Your task to perform on an android device: Open Maps and search for coffee Image 0: 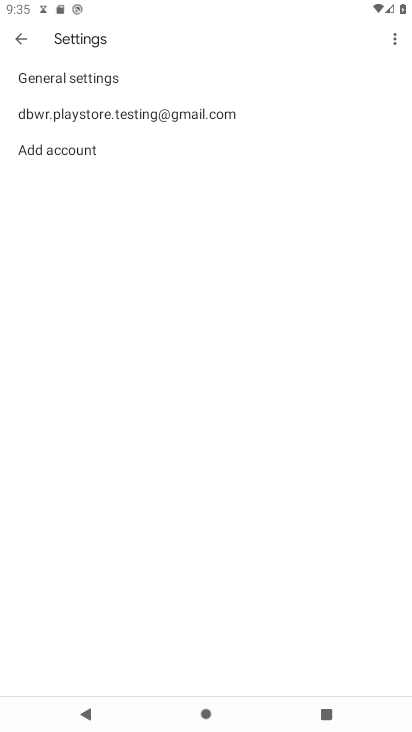
Step 0: press home button
Your task to perform on an android device: Open Maps and search for coffee Image 1: 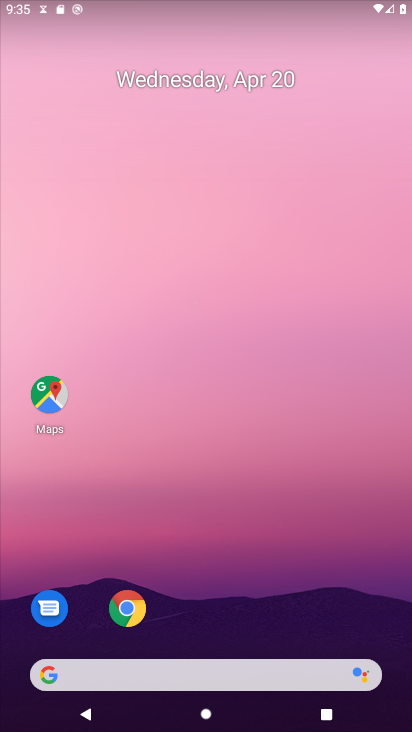
Step 1: drag from (165, 623) to (105, 58)
Your task to perform on an android device: Open Maps and search for coffee Image 2: 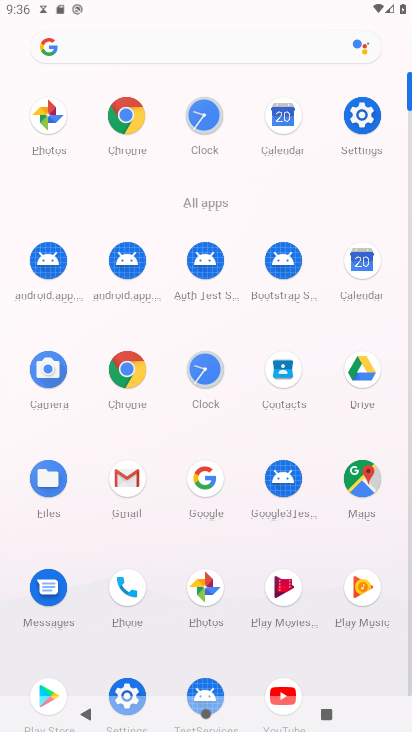
Step 2: click (359, 480)
Your task to perform on an android device: Open Maps and search for coffee Image 3: 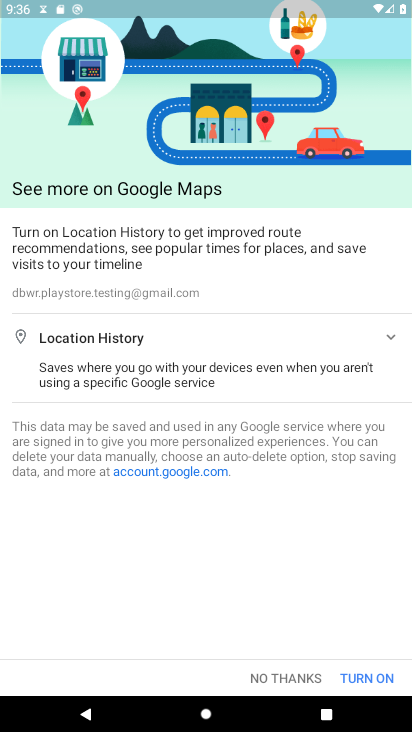
Step 3: click (342, 676)
Your task to perform on an android device: Open Maps and search for coffee Image 4: 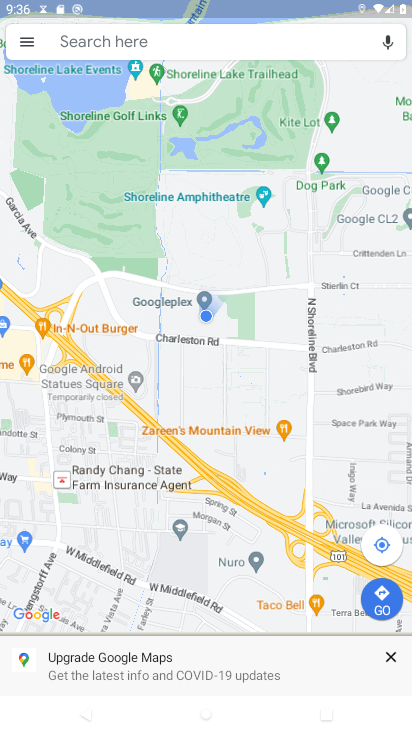
Step 4: click (139, 47)
Your task to perform on an android device: Open Maps and search for coffee Image 5: 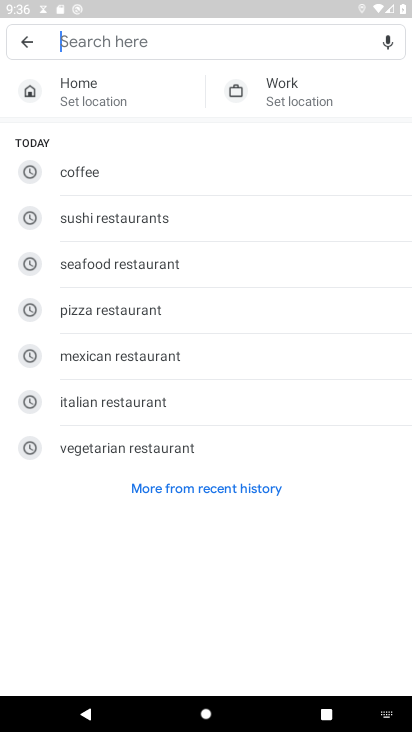
Step 5: type "coffee"
Your task to perform on an android device: Open Maps and search for coffee Image 6: 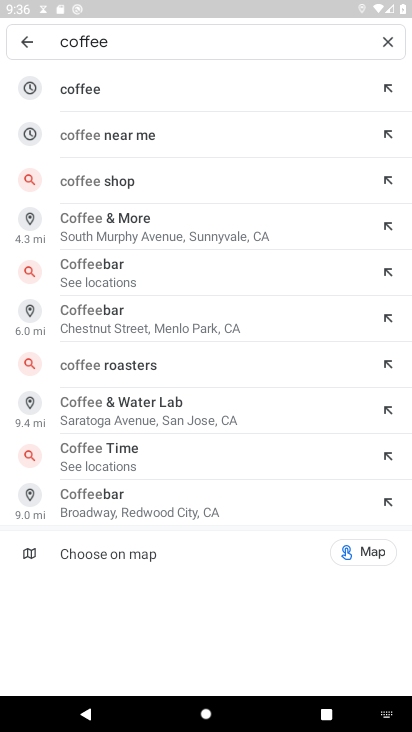
Step 6: click (111, 92)
Your task to perform on an android device: Open Maps and search for coffee Image 7: 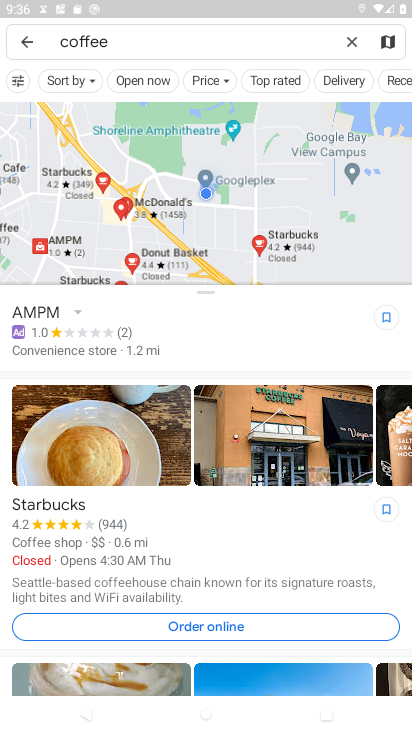
Step 7: task complete